Your task to perform on an android device: manage bookmarks in the chrome app Image 0: 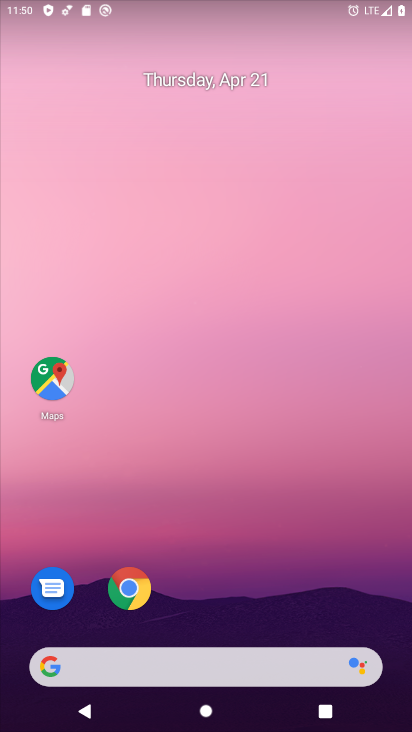
Step 0: drag from (265, 557) to (312, 71)
Your task to perform on an android device: manage bookmarks in the chrome app Image 1: 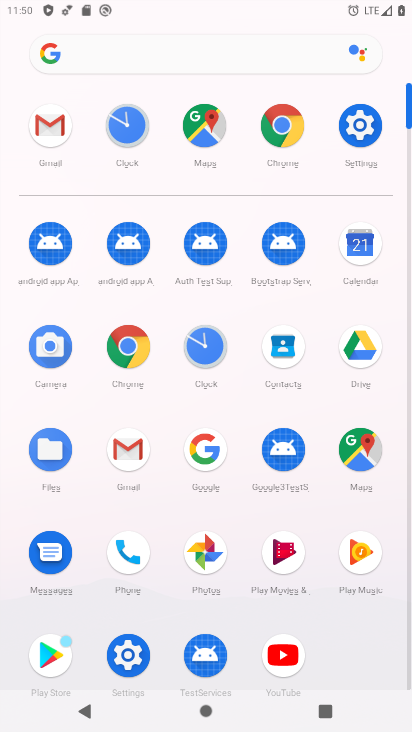
Step 1: click (292, 122)
Your task to perform on an android device: manage bookmarks in the chrome app Image 2: 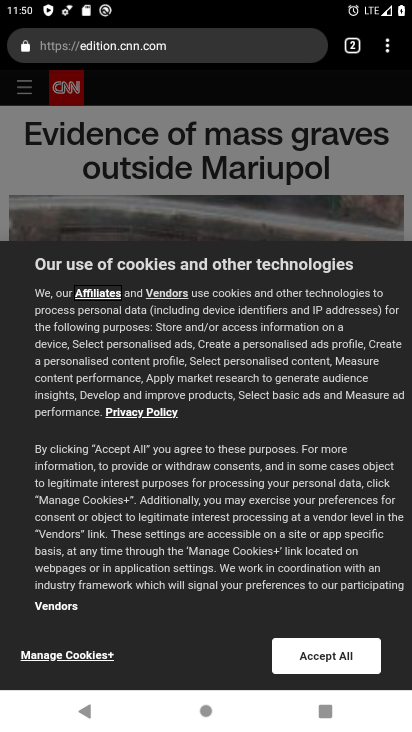
Step 2: click (384, 46)
Your task to perform on an android device: manage bookmarks in the chrome app Image 3: 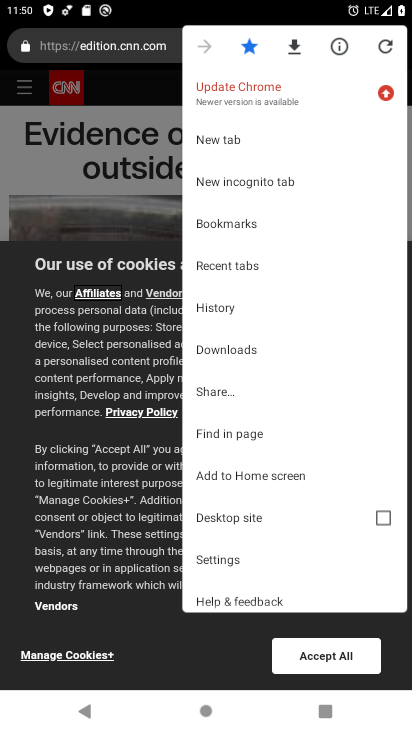
Step 3: click (234, 223)
Your task to perform on an android device: manage bookmarks in the chrome app Image 4: 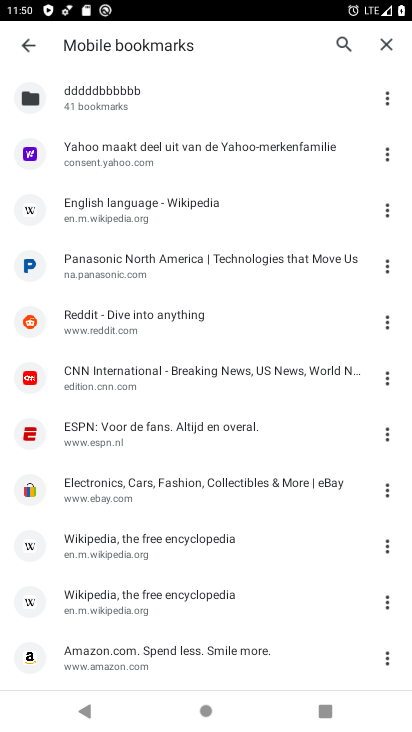
Step 4: task complete